Your task to perform on an android device: change the clock style Image 0: 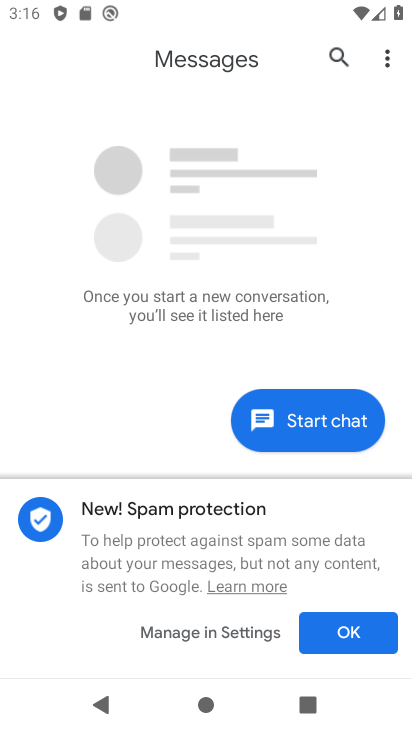
Step 0: press home button
Your task to perform on an android device: change the clock style Image 1: 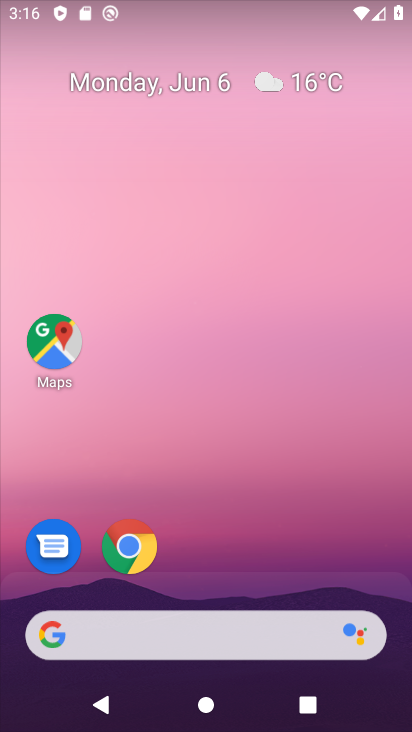
Step 1: drag from (312, 531) to (341, 174)
Your task to perform on an android device: change the clock style Image 2: 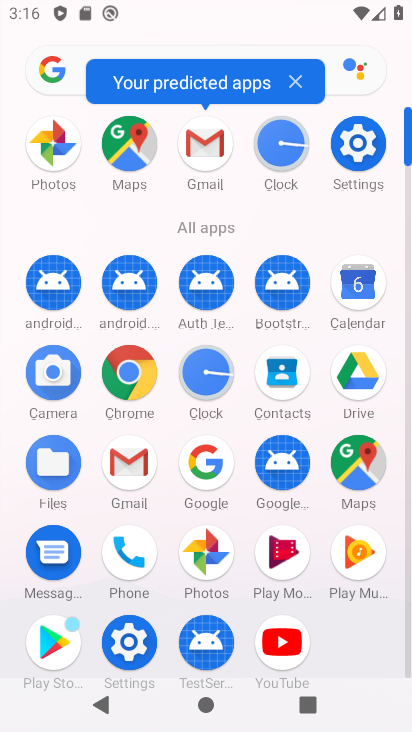
Step 2: click (293, 149)
Your task to perform on an android device: change the clock style Image 3: 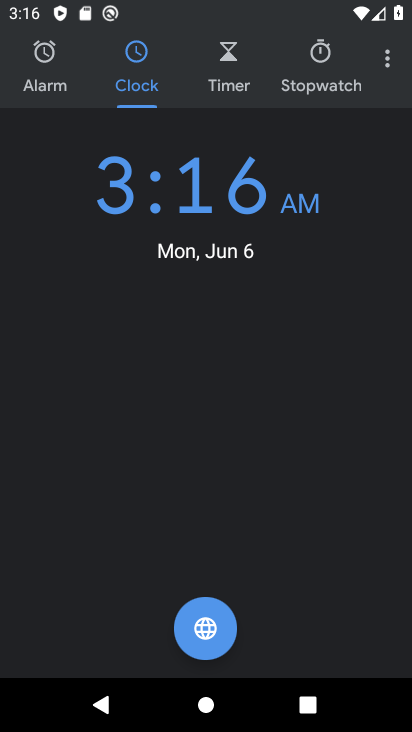
Step 3: click (388, 63)
Your task to perform on an android device: change the clock style Image 4: 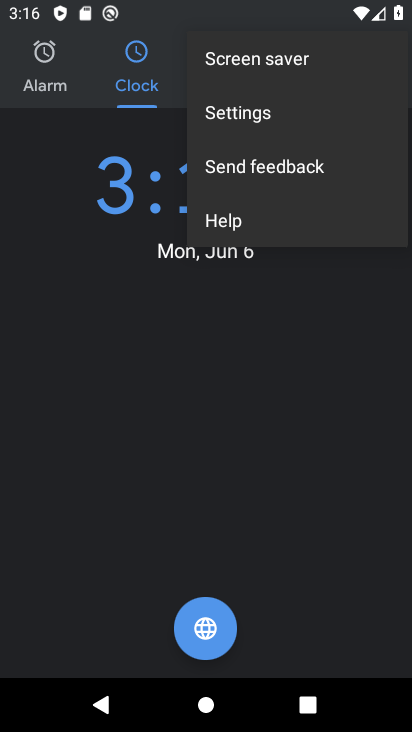
Step 4: click (266, 120)
Your task to perform on an android device: change the clock style Image 5: 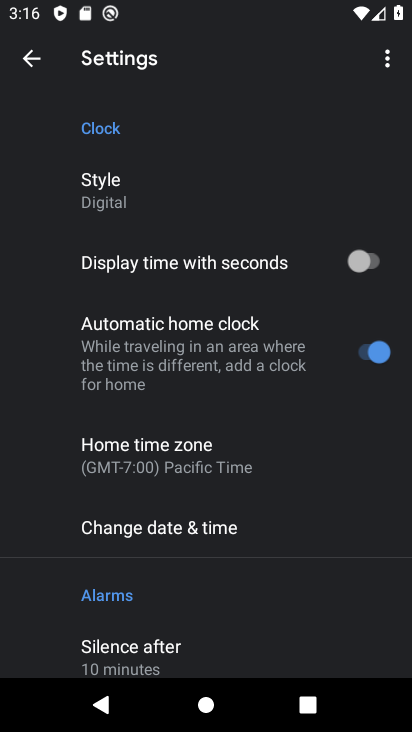
Step 5: click (206, 181)
Your task to perform on an android device: change the clock style Image 6: 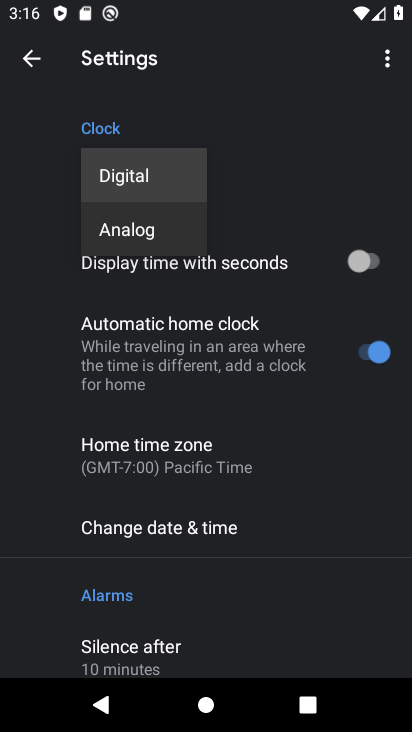
Step 6: click (161, 223)
Your task to perform on an android device: change the clock style Image 7: 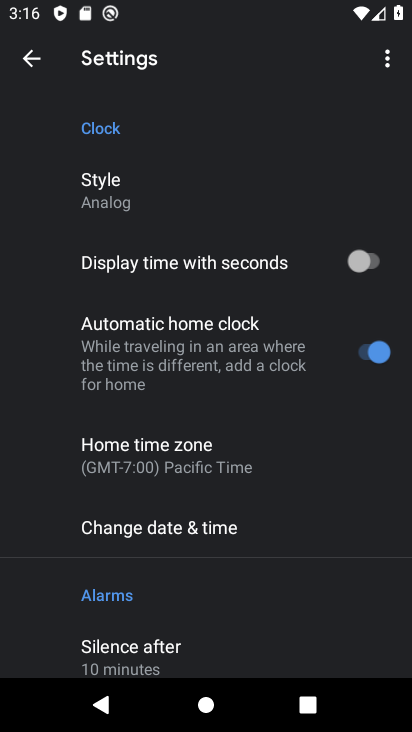
Step 7: task complete